Your task to perform on an android device: see creations saved in the google photos Image 0: 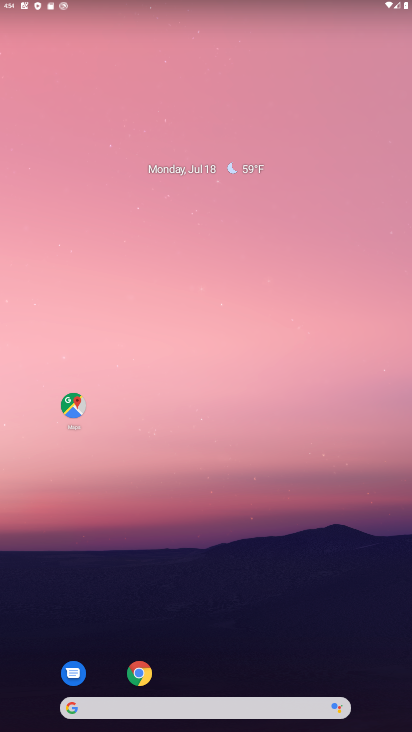
Step 0: drag from (341, 595) to (250, 195)
Your task to perform on an android device: see creations saved in the google photos Image 1: 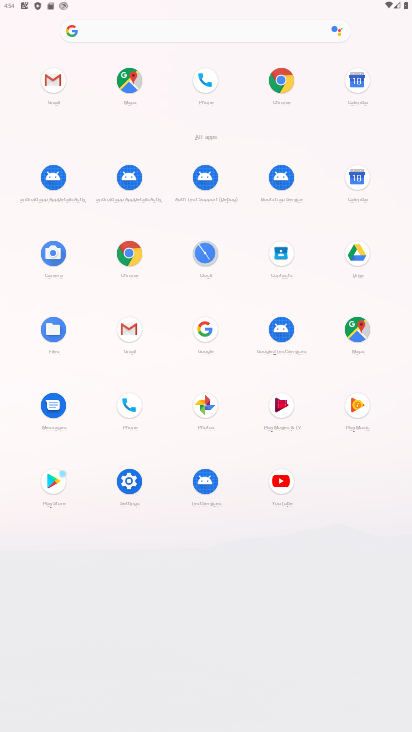
Step 1: click (196, 417)
Your task to perform on an android device: see creations saved in the google photos Image 2: 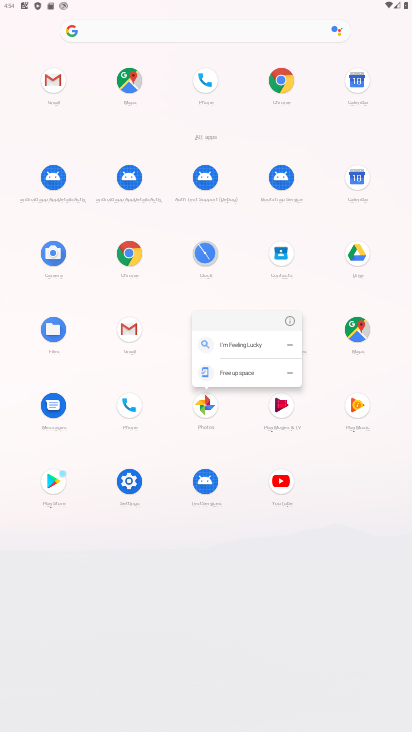
Step 2: click (193, 409)
Your task to perform on an android device: see creations saved in the google photos Image 3: 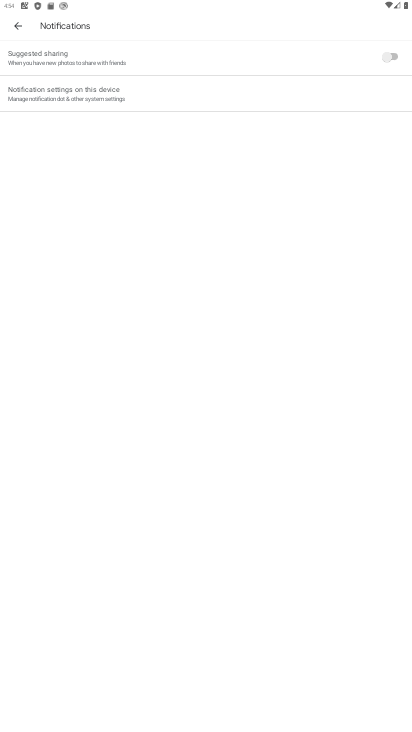
Step 3: click (15, 28)
Your task to perform on an android device: see creations saved in the google photos Image 4: 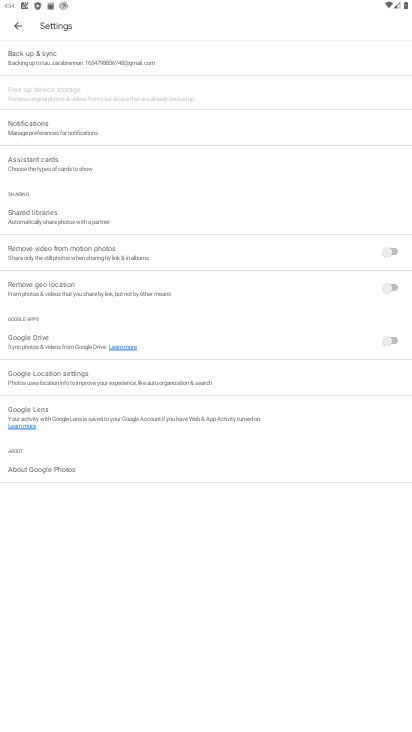
Step 4: click (10, 20)
Your task to perform on an android device: see creations saved in the google photos Image 5: 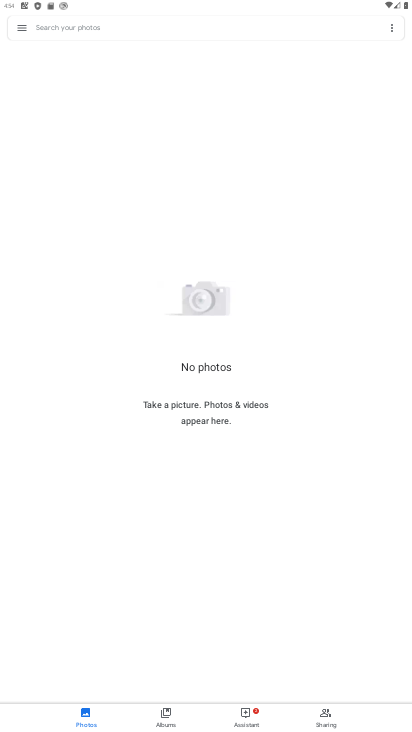
Step 5: click (156, 726)
Your task to perform on an android device: see creations saved in the google photos Image 6: 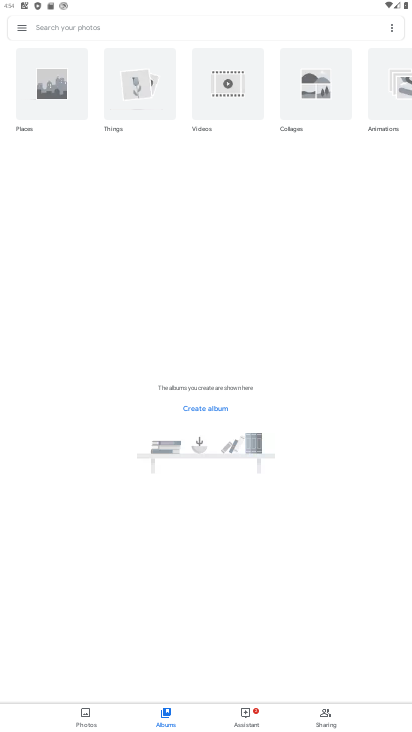
Step 6: task complete